Your task to perform on an android device: stop showing notifications on the lock screen Image 0: 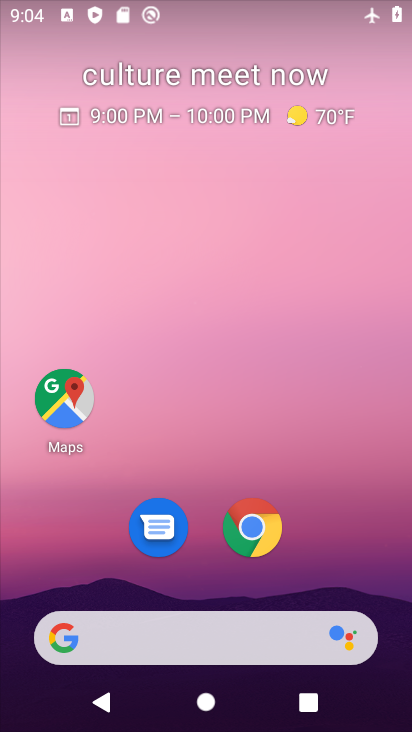
Step 0: drag from (269, 521) to (326, 189)
Your task to perform on an android device: stop showing notifications on the lock screen Image 1: 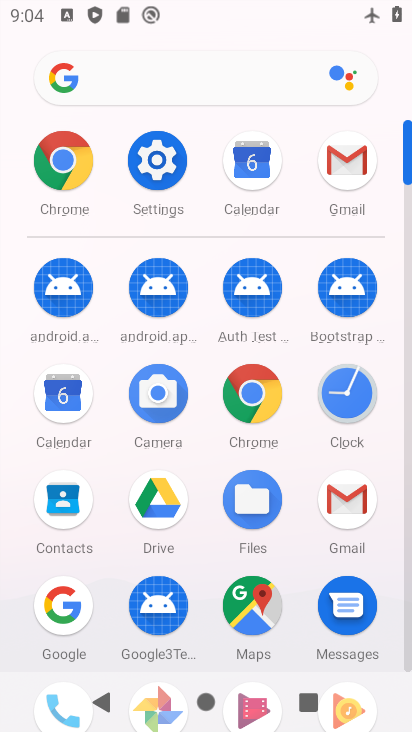
Step 1: click (146, 181)
Your task to perform on an android device: stop showing notifications on the lock screen Image 2: 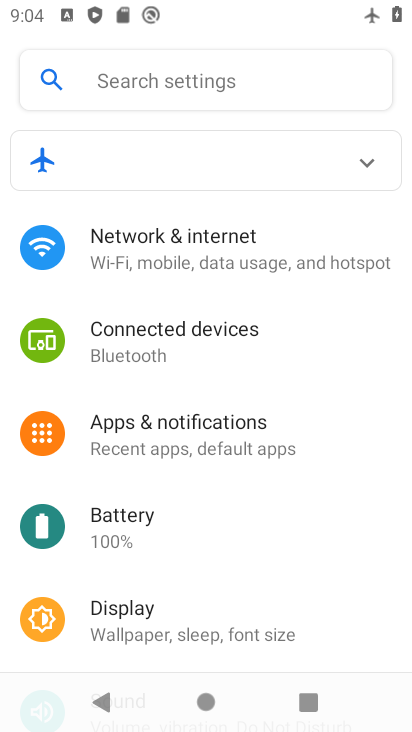
Step 2: click (214, 430)
Your task to perform on an android device: stop showing notifications on the lock screen Image 3: 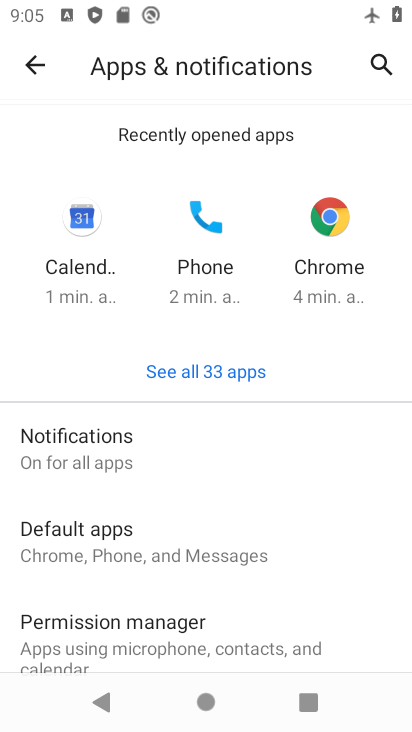
Step 3: click (163, 460)
Your task to perform on an android device: stop showing notifications on the lock screen Image 4: 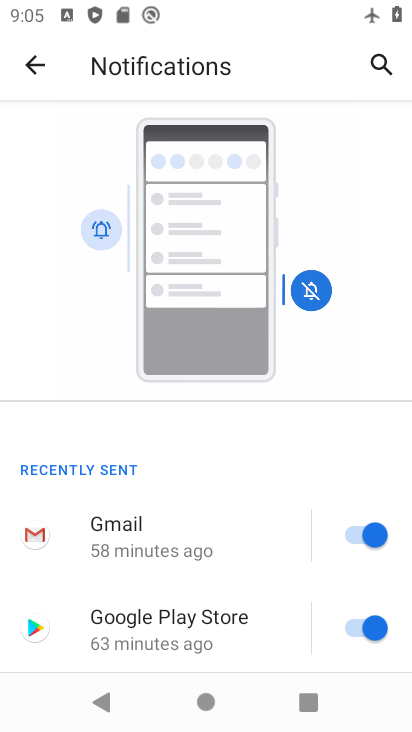
Step 4: drag from (124, 532) to (146, 326)
Your task to perform on an android device: stop showing notifications on the lock screen Image 5: 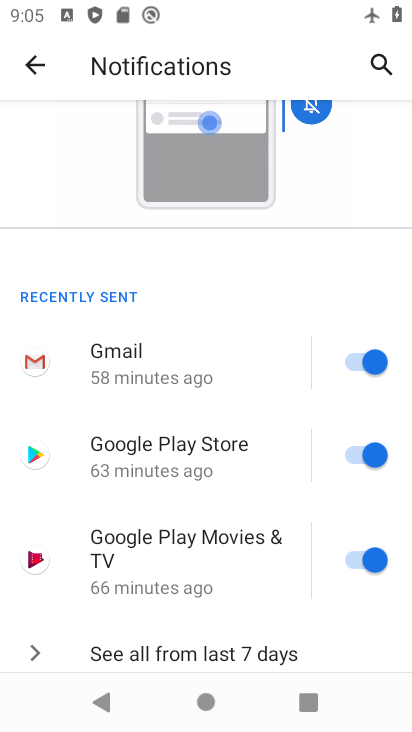
Step 5: drag from (167, 434) to (211, 223)
Your task to perform on an android device: stop showing notifications on the lock screen Image 6: 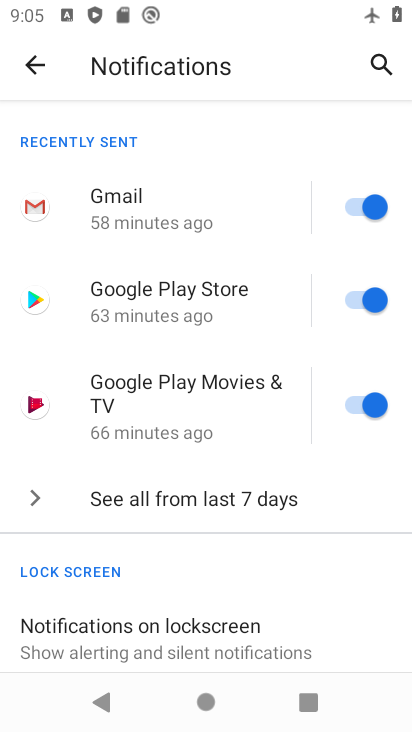
Step 6: click (209, 655)
Your task to perform on an android device: stop showing notifications on the lock screen Image 7: 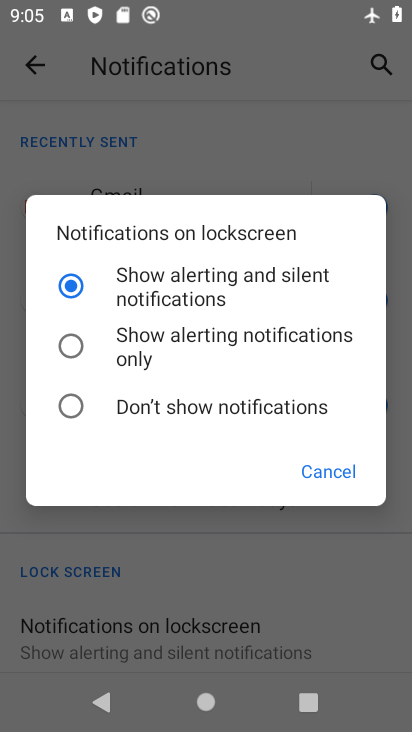
Step 7: click (179, 403)
Your task to perform on an android device: stop showing notifications on the lock screen Image 8: 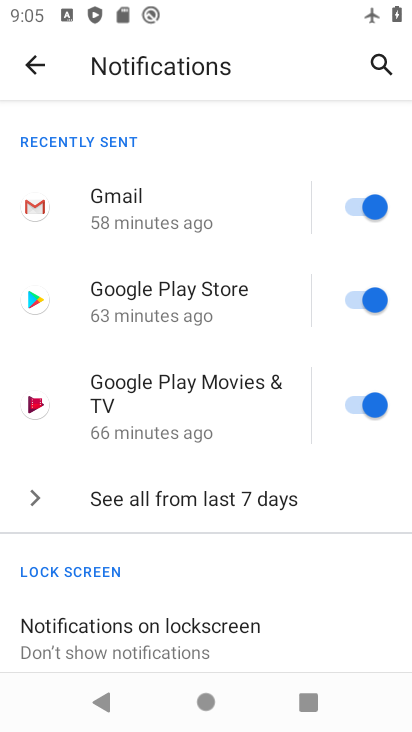
Step 8: task complete